Your task to perform on an android device: Open Google Chrome Image 0: 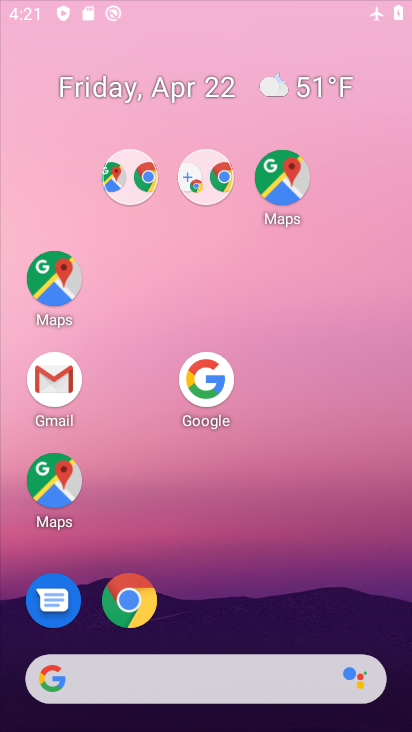
Step 0: drag from (154, 0) to (404, 440)
Your task to perform on an android device: Open Google Chrome Image 1: 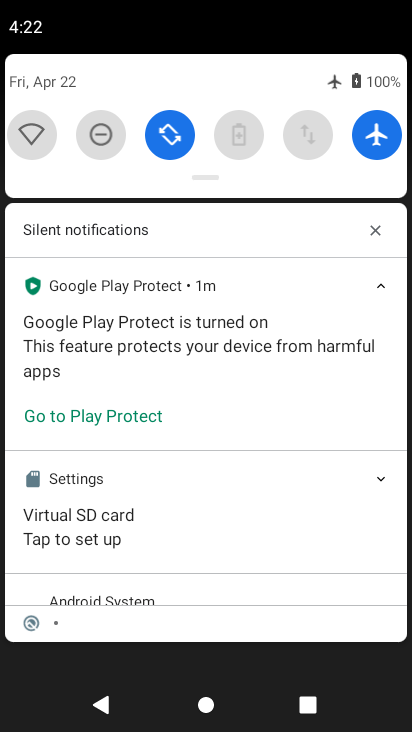
Step 1: click (230, 432)
Your task to perform on an android device: Open Google Chrome Image 2: 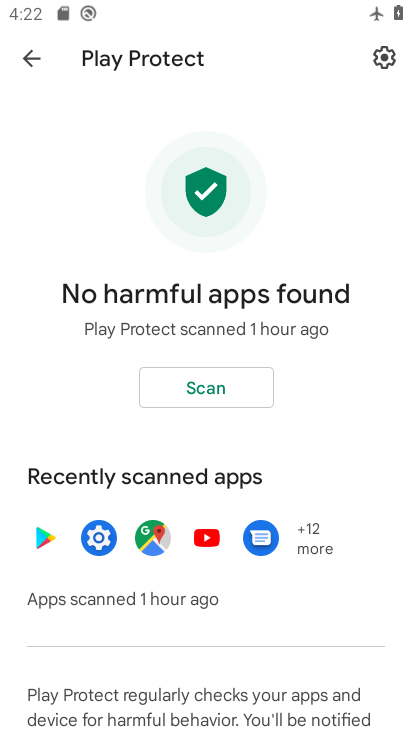
Step 2: click (23, 58)
Your task to perform on an android device: Open Google Chrome Image 3: 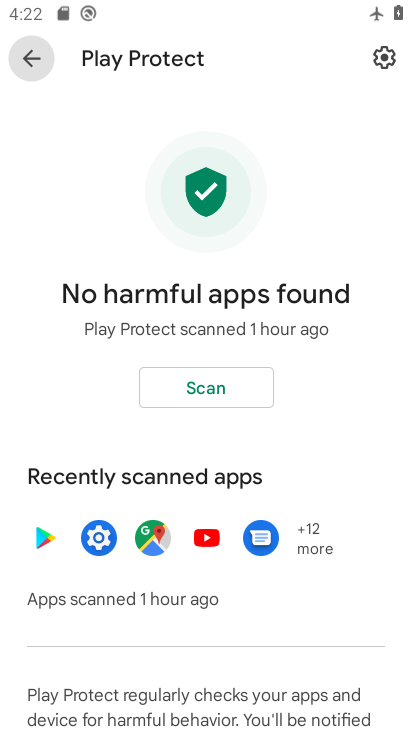
Step 3: click (23, 58)
Your task to perform on an android device: Open Google Chrome Image 4: 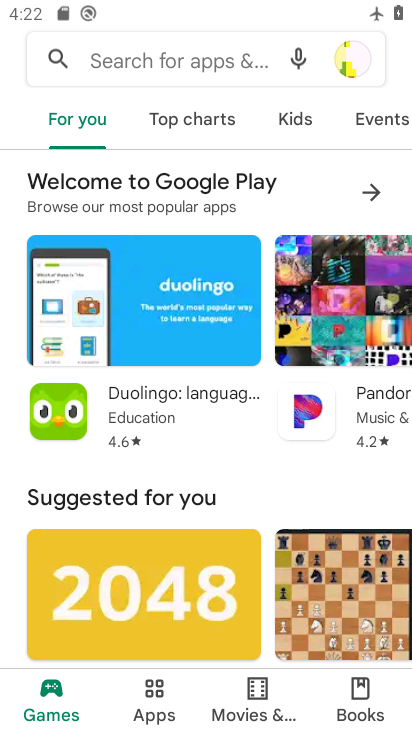
Step 4: press home button
Your task to perform on an android device: Open Google Chrome Image 5: 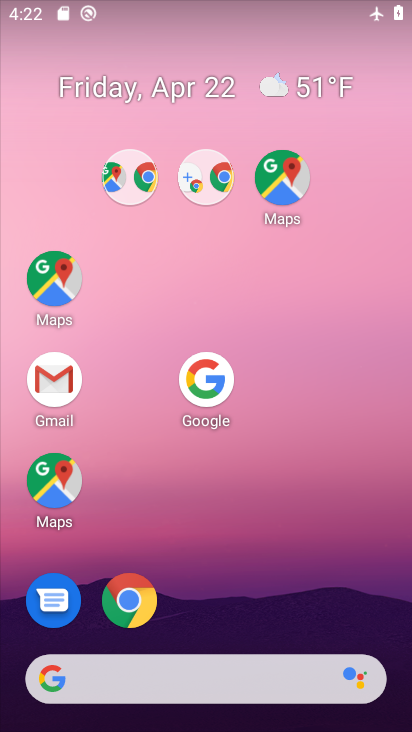
Step 5: drag from (313, 540) to (58, 180)
Your task to perform on an android device: Open Google Chrome Image 6: 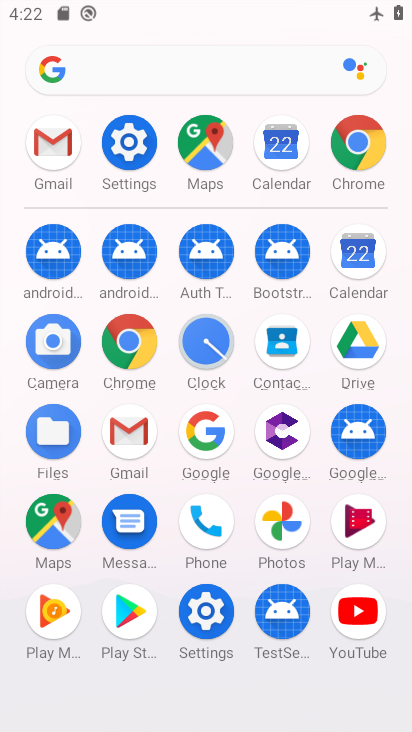
Step 6: click (362, 150)
Your task to perform on an android device: Open Google Chrome Image 7: 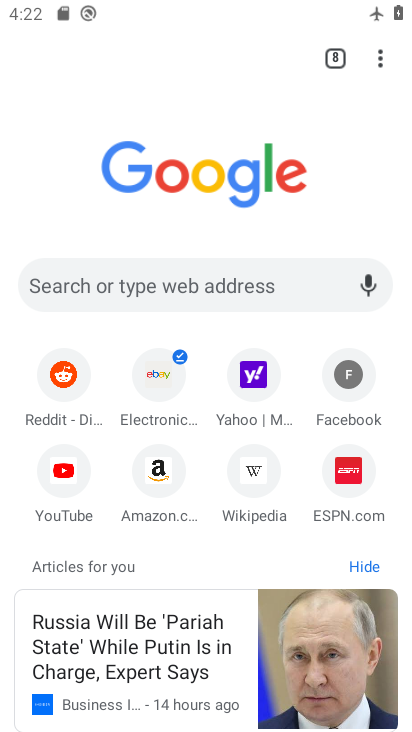
Step 7: drag from (381, 49) to (209, 166)
Your task to perform on an android device: Open Google Chrome Image 8: 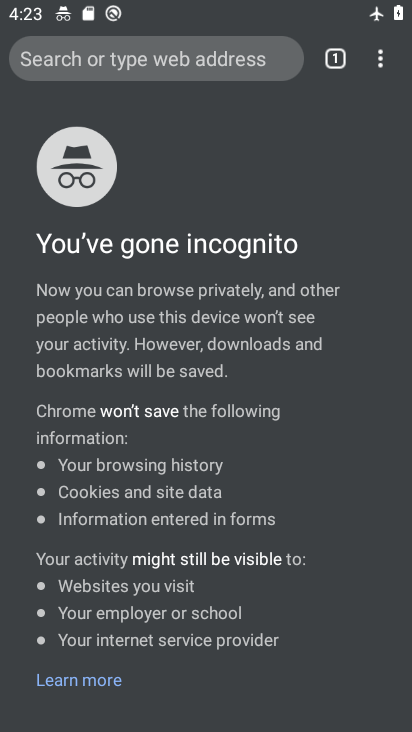
Step 8: click (209, 166)
Your task to perform on an android device: Open Google Chrome Image 9: 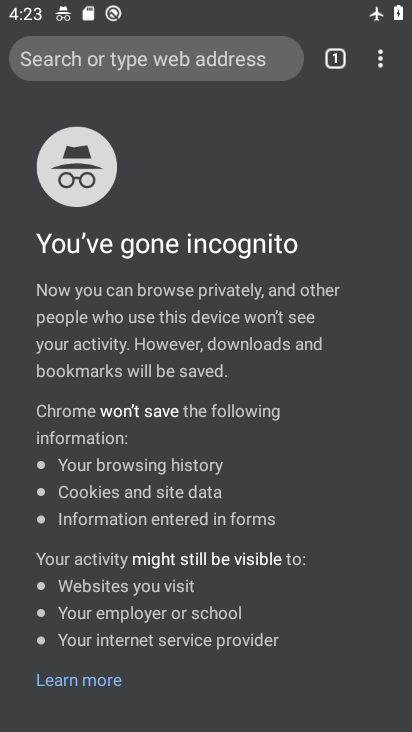
Step 9: click (209, 166)
Your task to perform on an android device: Open Google Chrome Image 10: 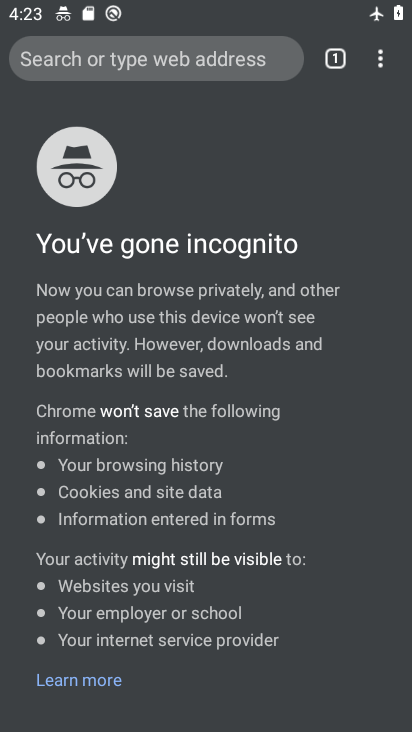
Step 10: click (375, 58)
Your task to perform on an android device: Open Google Chrome Image 11: 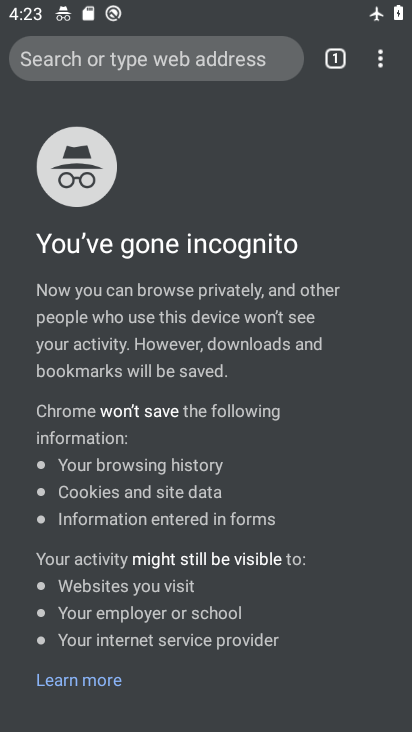
Step 11: click (382, 61)
Your task to perform on an android device: Open Google Chrome Image 12: 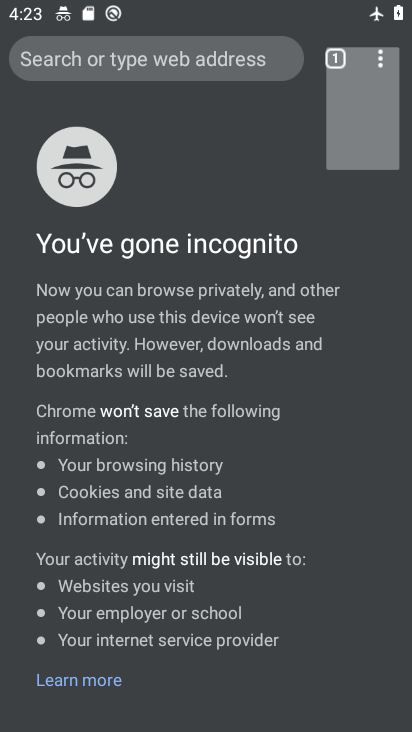
Step 12: click (385, 64)
Your task to perform on an android device: Open Google Chrome Image 13: 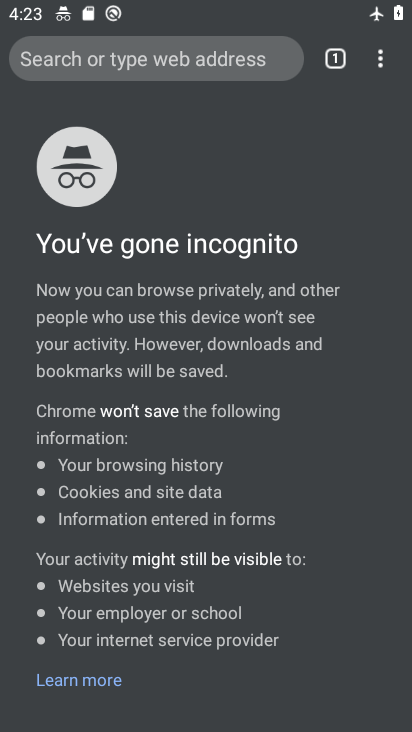
Step 13: click (377, 62)
Your task to perform on an android device: Open Google Chrome Image 14: 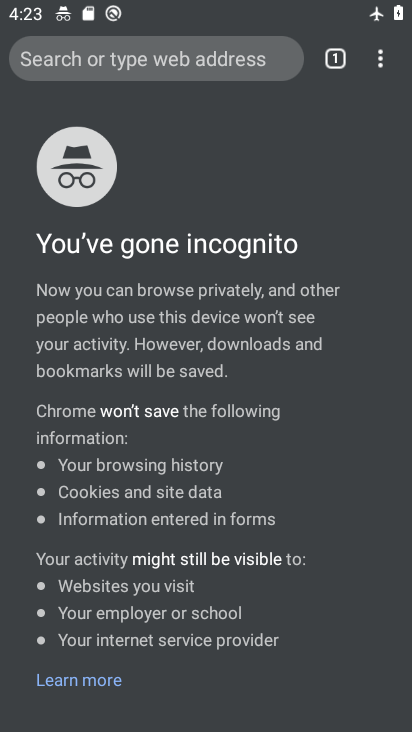
Step 14: click (378, 61)
Your task to perform on an android device: Open Google Chrome Image 15: 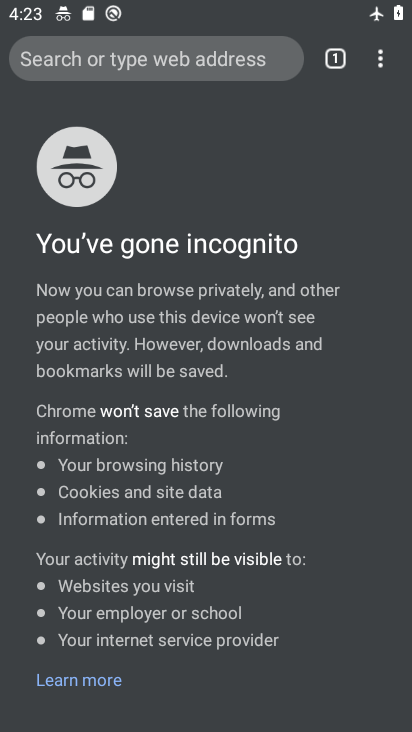
Step 15: click (375, 63)
Your task to perform on an android device: Open Google Chrome Image 16: 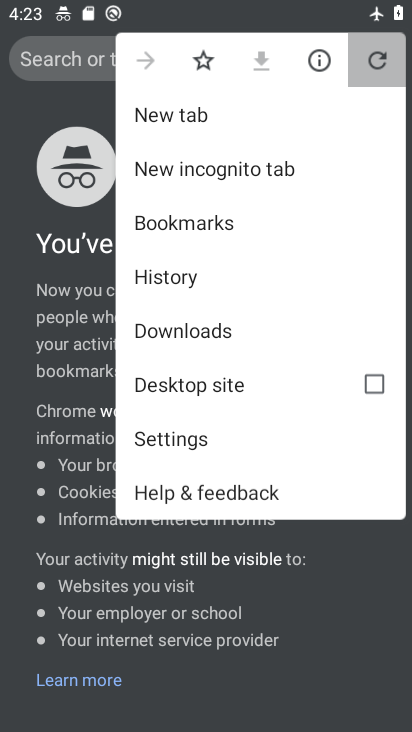
Step 16: click (376, 65)
Your task to perform on an android device: Open Google Chrome Image 17: 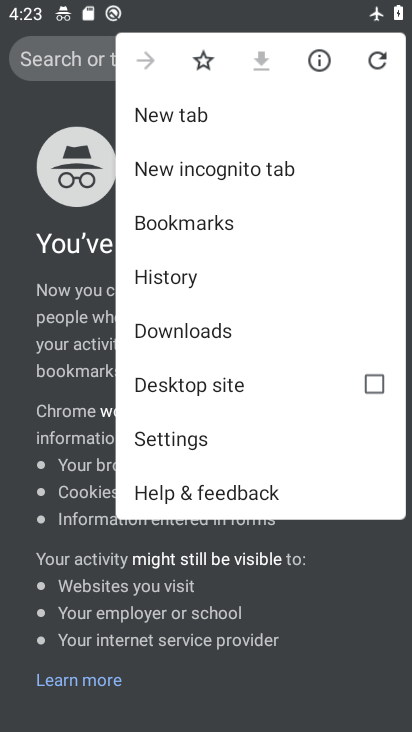
Step 17: click (188, 224)
Your task to perform on an android device: Open Google Chrome Image 18: 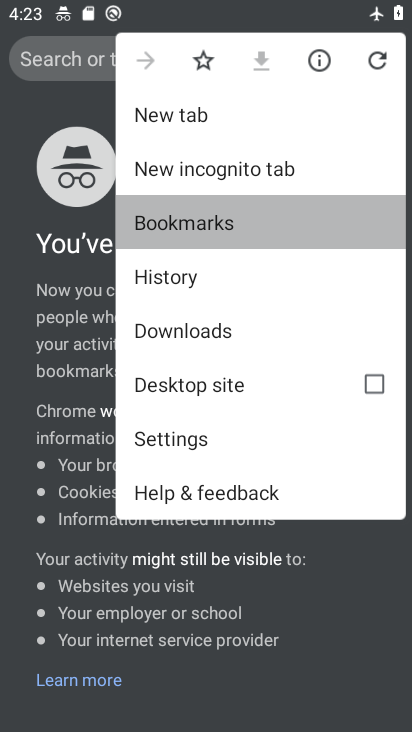
Step 18: click (189, 224)
Your task to perform on an android device: Open Google Chrome Image 19: 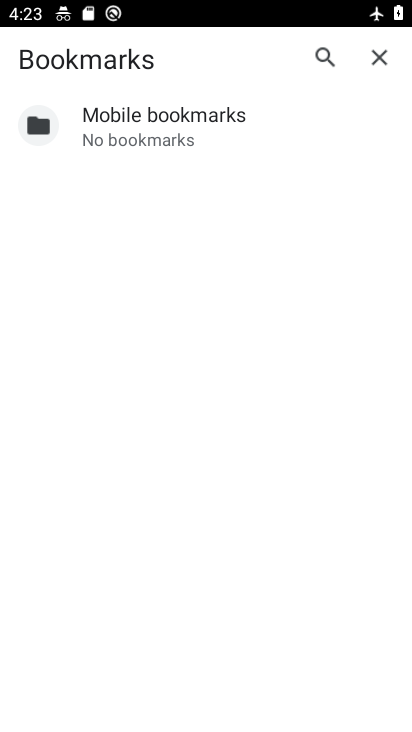
Step 19: click (369, 58)
Your task to perform on an android device: Open Google Chrome Image 20: 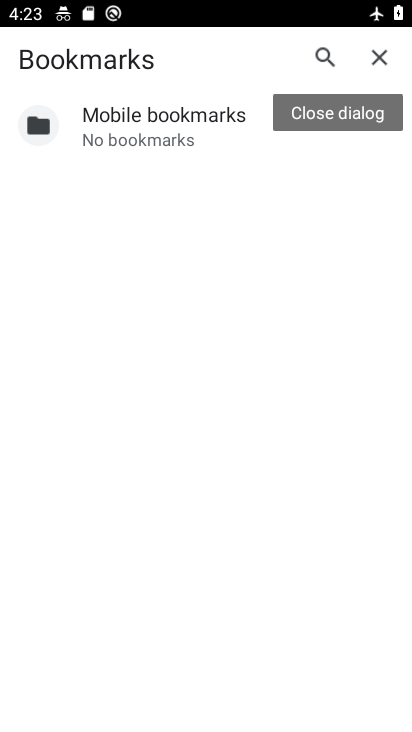
Step 20: click (378, 63)
Your task to perform on an android device: Open Google Chrome Image 21: 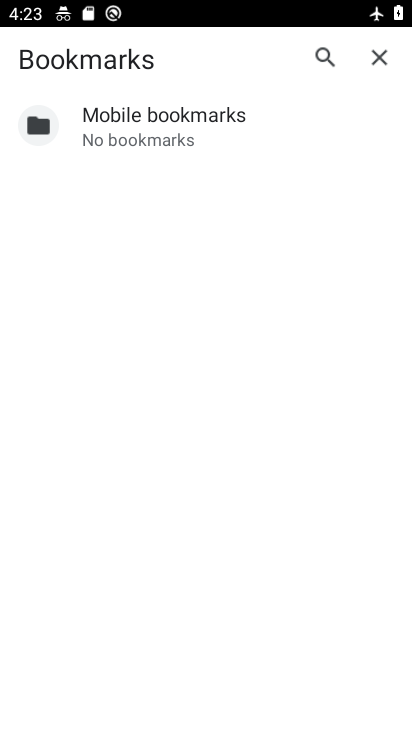
Step 21: click (377, 63)
Your task to perform on an android device: Open Google Chrome Image 22: 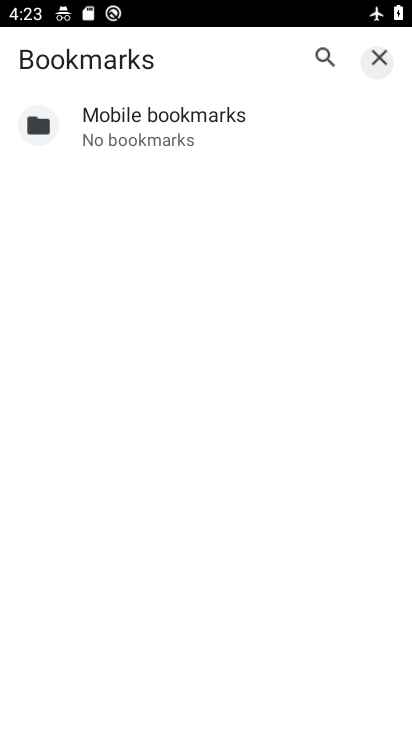
Step 22: click (383, 58)
Your task to perform on an android device: Open Google Chrome Image 23: 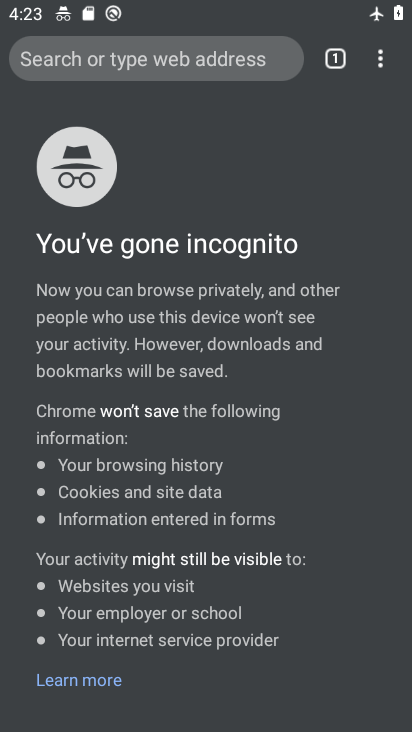
Step 23: click (384, 66)
Your task to perform on an android device: Open Google Chrome Image 24: 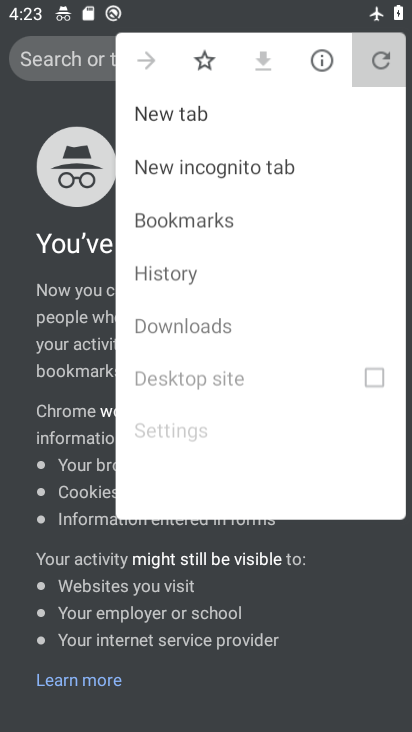
Step 24: click (384, 66)
Your task to perform on an android device: Open Google Chrome Image 25: 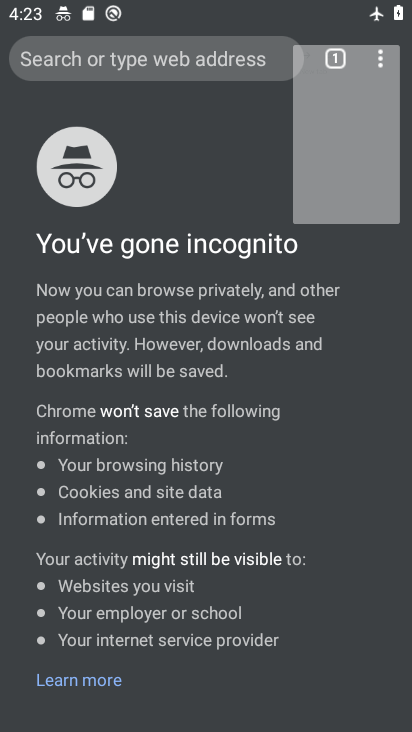
Step 25: click (384, 66)
Your task to perform on an android device: Open Google Chrome Image 26: 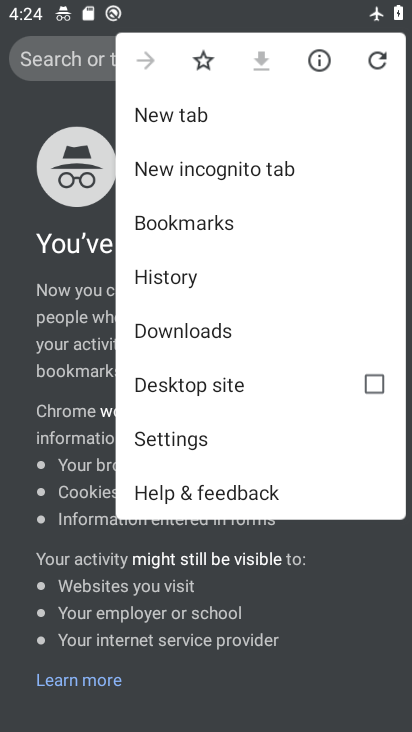
Step 26: click (179, 329)
Your task to perform on an android device: Open Google Chrome Image 27: 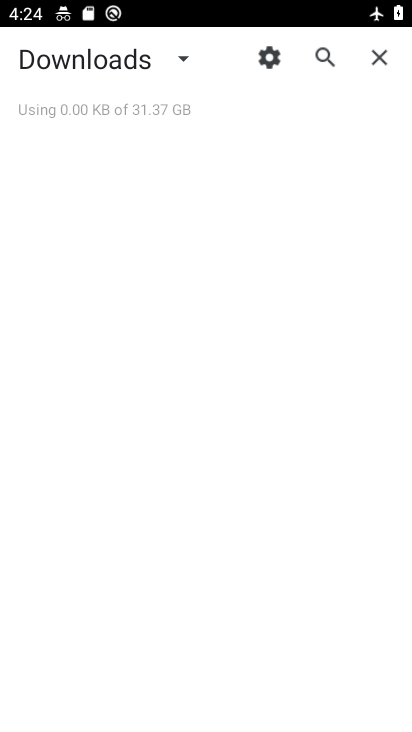
Step 27: click (389, 57)
Your task to perform on an android device: Open Google Chrome Image 28: 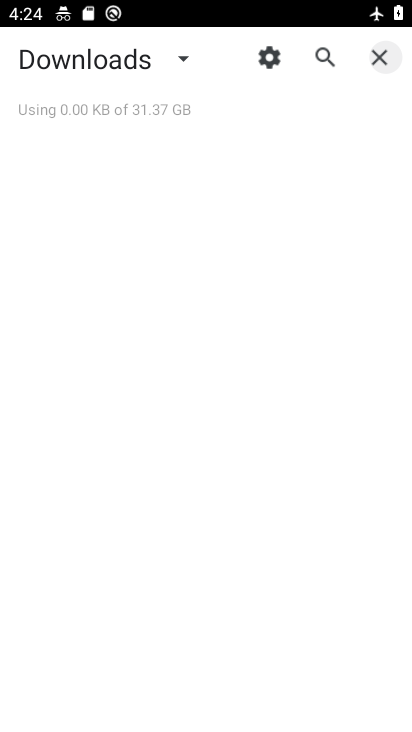
Step 28: click (389, 57)
Your task to perform on an android device: Open Google Chrome Image 29: 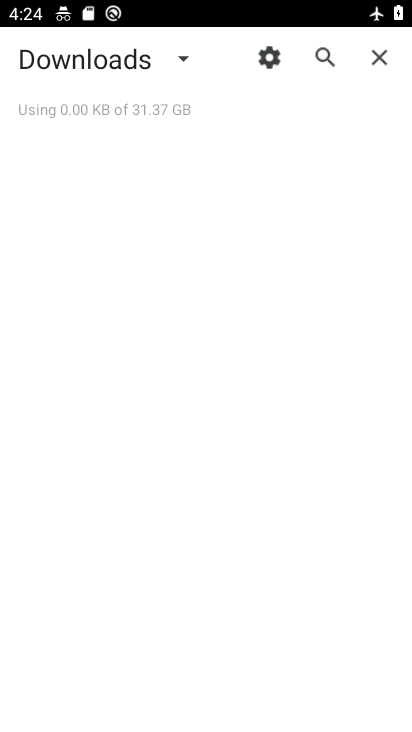
Step 29: click (389, 57)
Your task to perform on an android device: Open Google Chrome Image 30: 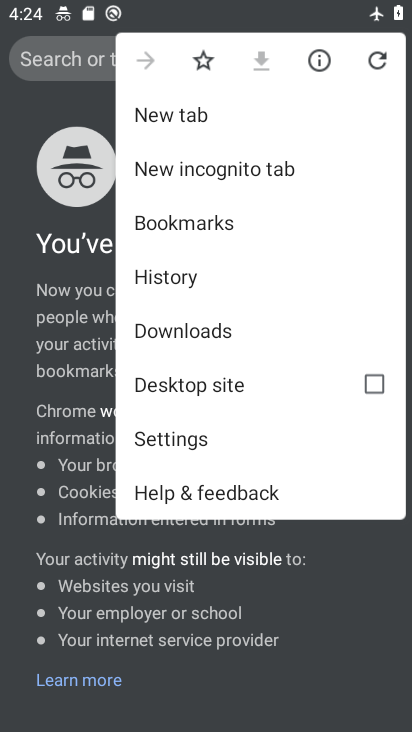
Step 30: click (189, 120)
Your task to perform on an android device: Open Google Chrome Image 31: 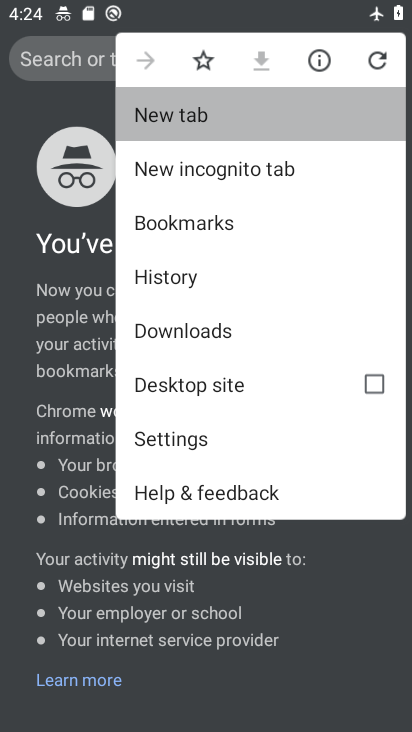
Step 31: click (186, 116)
Your task to perform on an android device: Open Google Chrome Image 32: 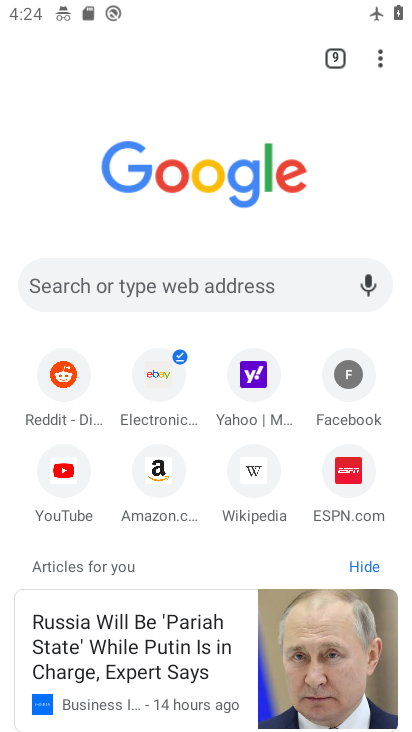
Step 32: task complete